Your task to perform on an android device: check out phone information Image 0: 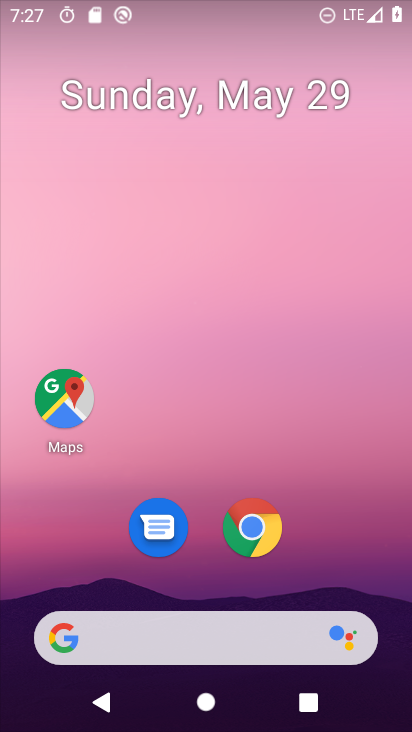
Step 0: drag from (409, 655) to (283, 76)
Your task to perform on an android device: check out phone information Image 1: 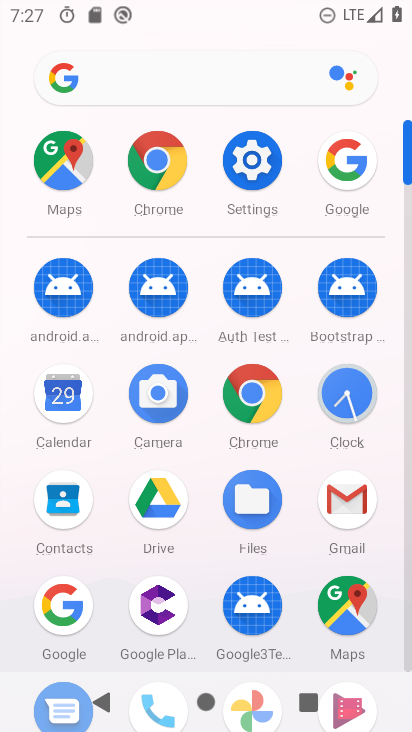
Step 1: click (241, 164)
Your task to perform on an android device: check out phone information Image 2: 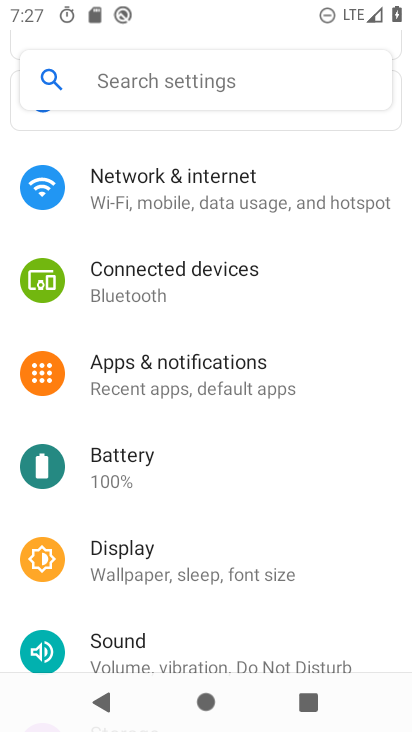
Step 2: drag from (134, 583) to (110, 124)
Your task to perform on an android device: check out phone information Image 3: 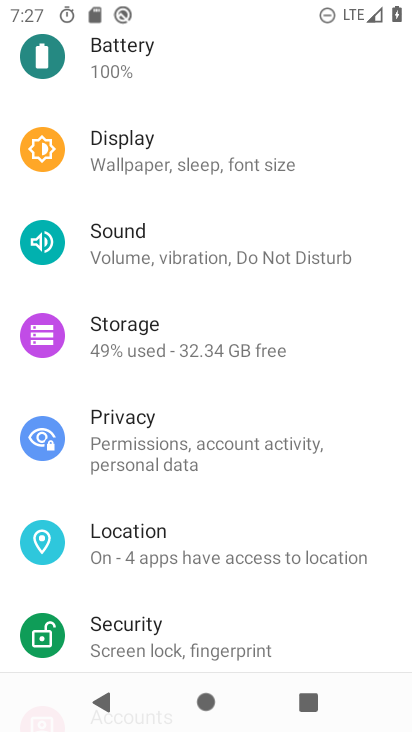
Step 3: drag from (149, 594) to (160, 29)
Your task to perform on an android device: check out phone information Image 4: 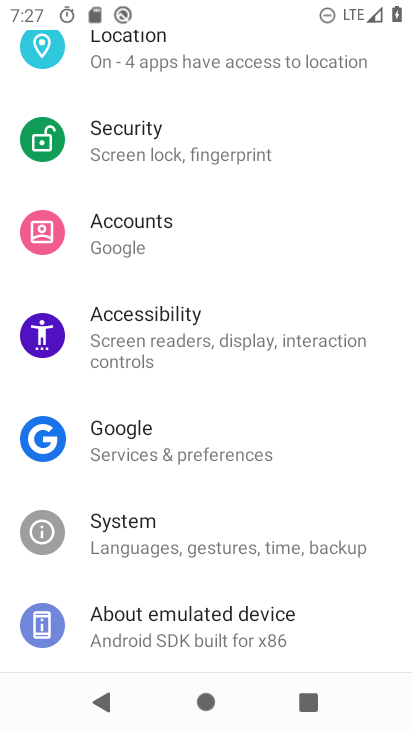
Step 4: drag from (197, 546) to (202, 42)
Your task to perform on an android device: check out phone information Image 5: 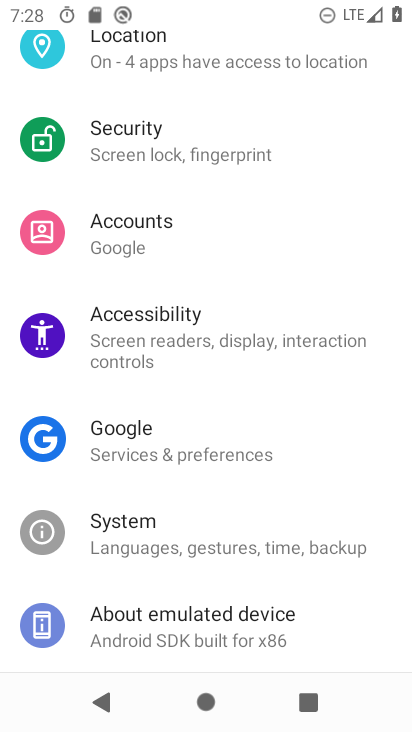
Step 5: click (138, 638)
Your task to perform on an android device: check out phone information Image 6: 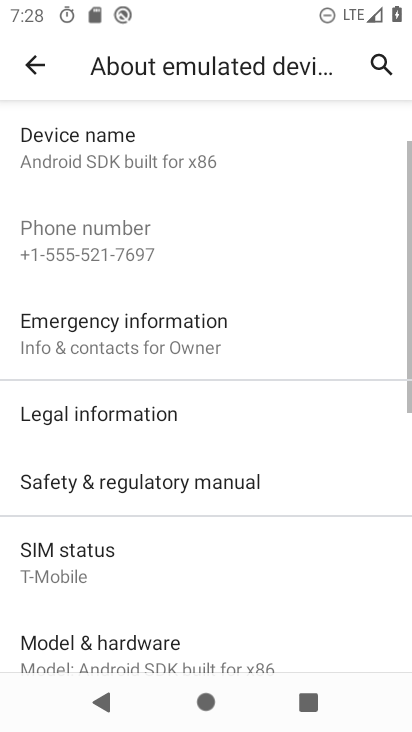
Step 6: task complete